Your task to perform on an android device: check the backup settings in the google photos Image 0: 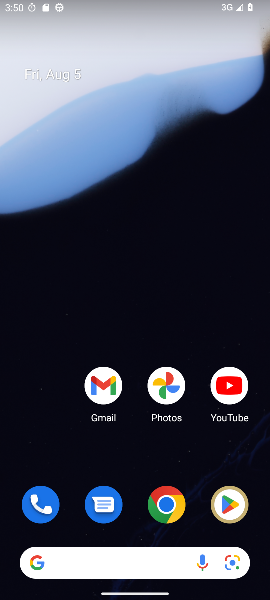
Step 0: click (166, 379)
Your task to perform on an android device: check the backup settings in the google photos Image 1: 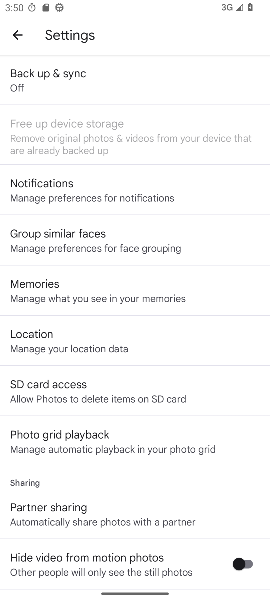
Step 1: click (86, 87)
Your task to perform on an android device: check the backup settings in the google photos Image 2: 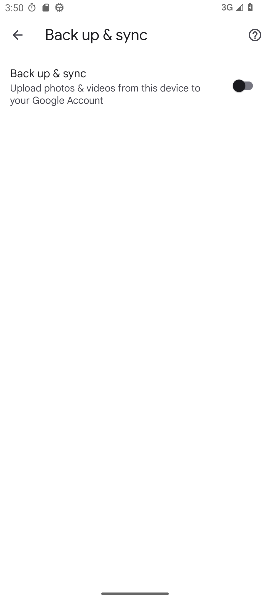
Step 2: click (234, 91)
Your task to perform on an android device: check the backup settings in the google photos Image 3: 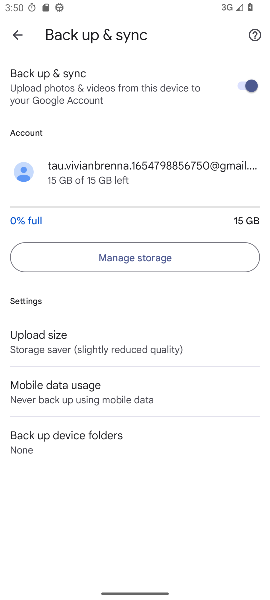
Step 3: task complete